Your task to perform on an android device: What's a good restaurant in San Francisco? Image 0: 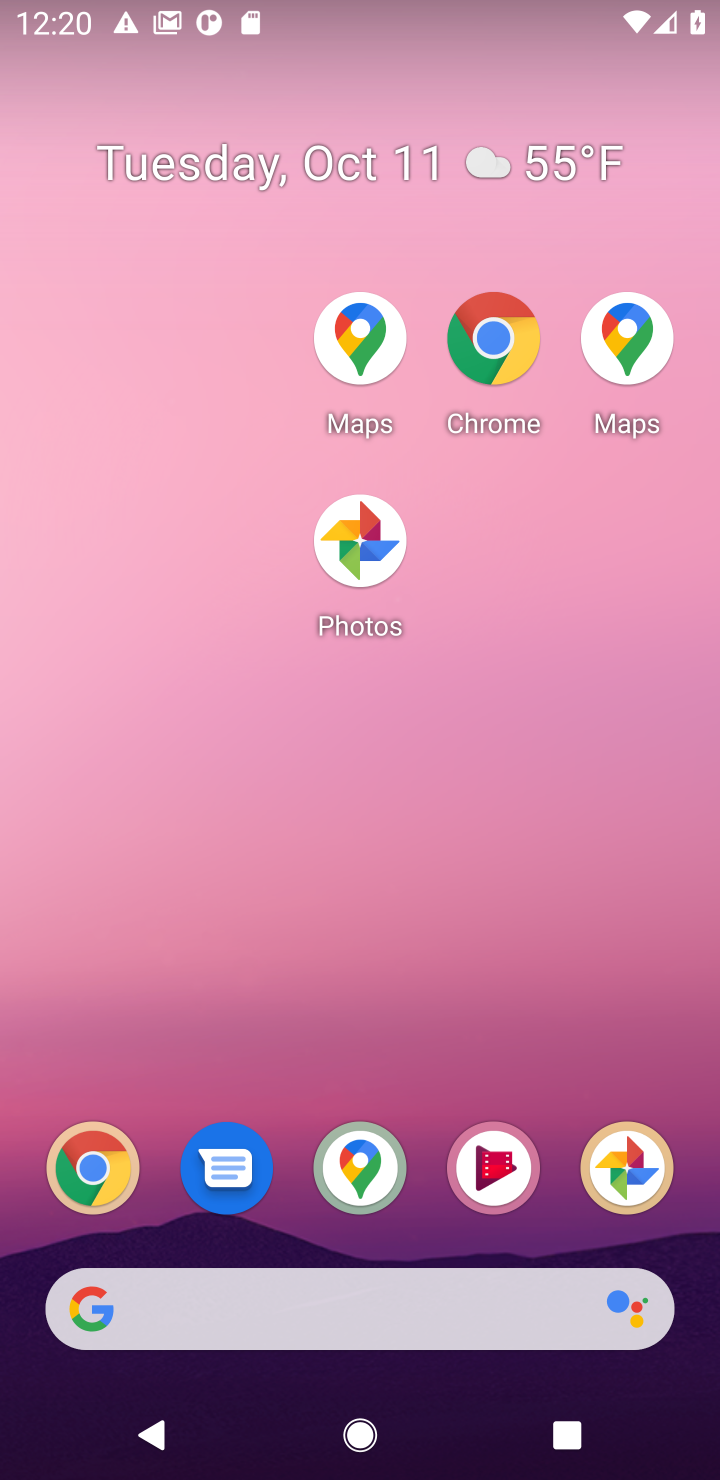
Step 0: drag from (439, 755) to (488, 31)
Your task to perform on an android device: What's a good restaurant in San Francisco? Image 1: 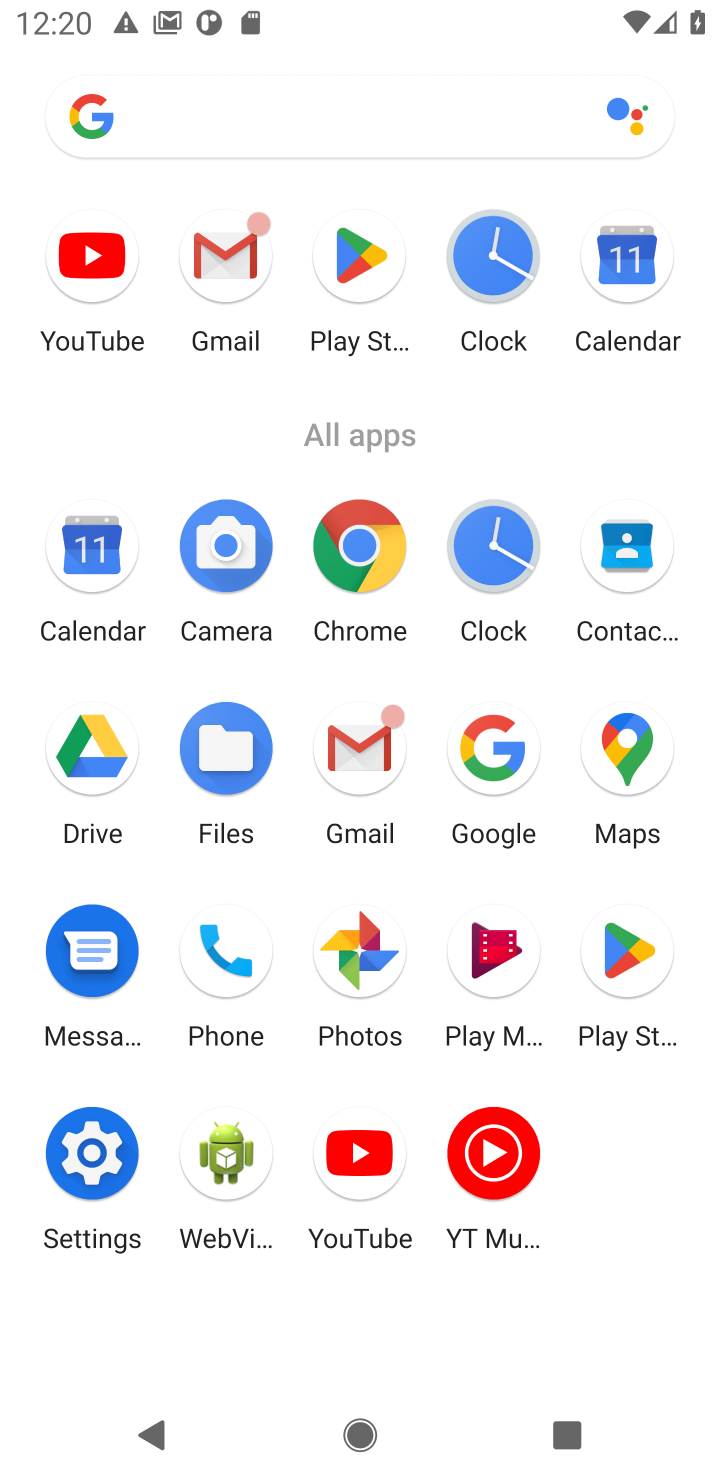
Step 1: click (516, 762)
Your task to perform on an android device: What's a good restaurant in San Francisco? Image 2: 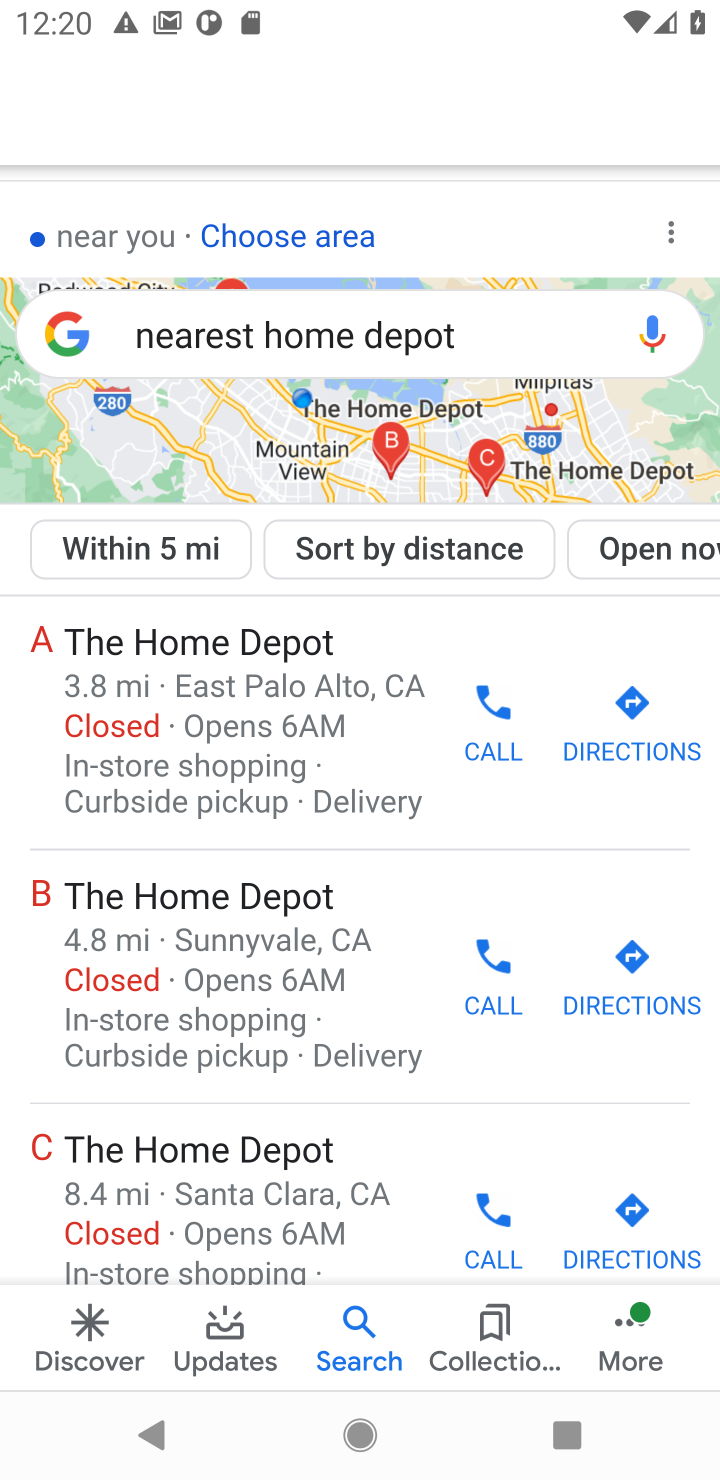
Step 2: click (458, 353)
Your task to perform on an android device: What's a good restaurant in San Francisco? Image 3: 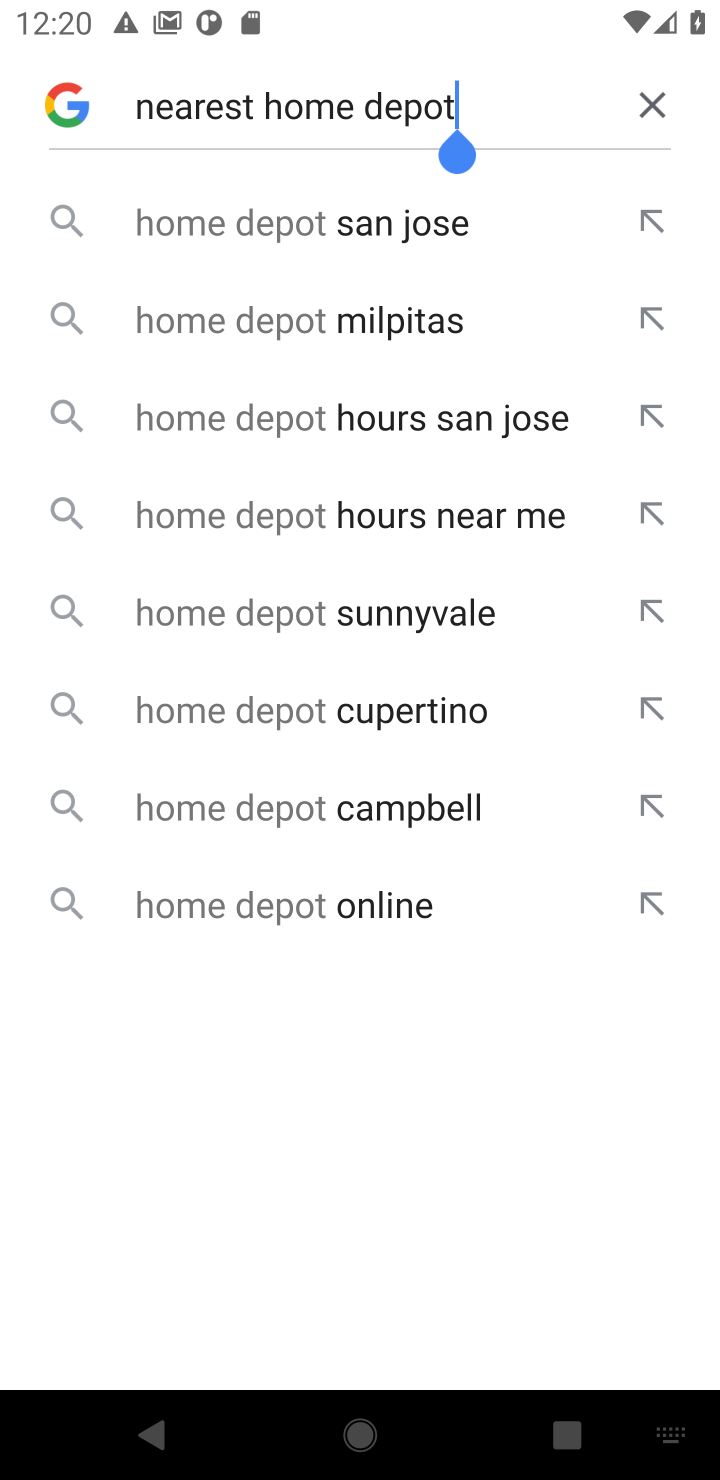
Step 3: click (667, 93)
Your task to perform on an android device: What's a good restaurant in San Francisco? Image 4: 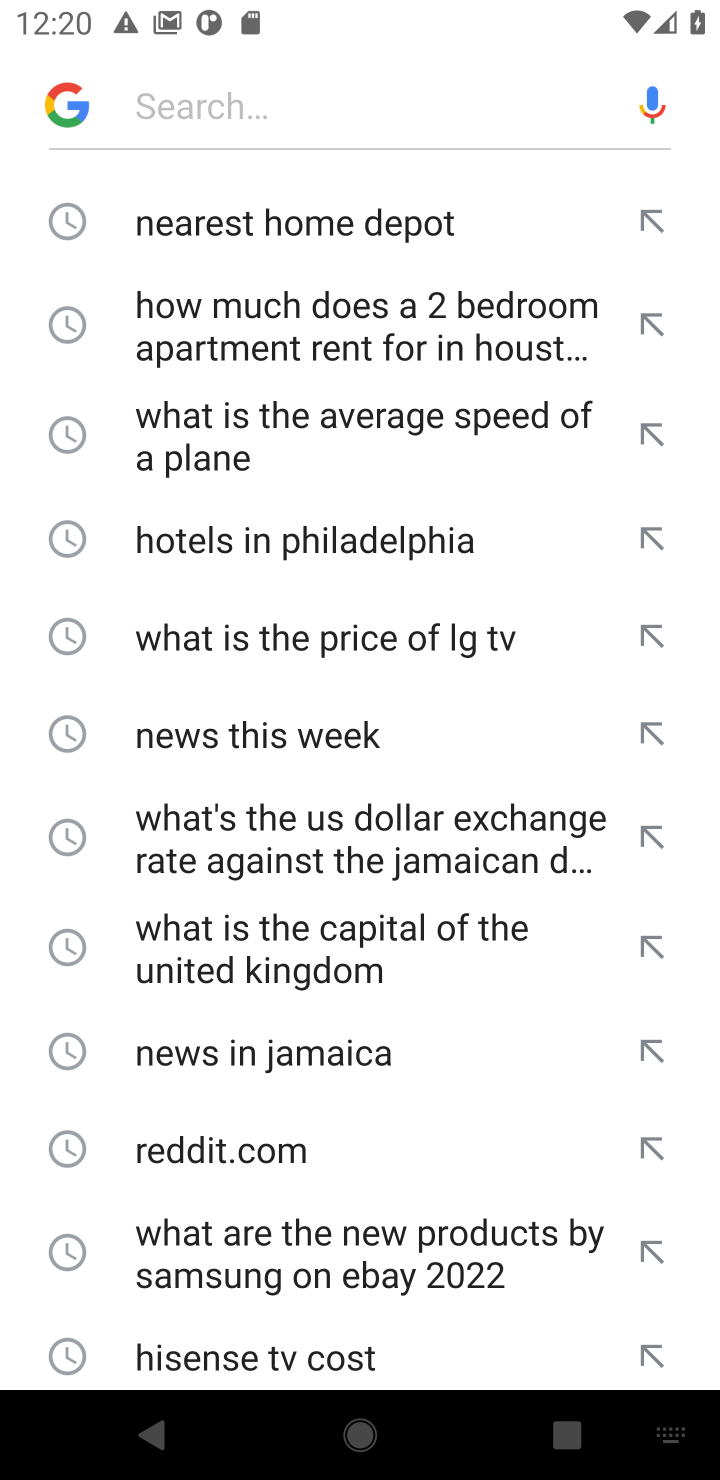
Step 4: type "good restaurant in San Francisco"
Your task to perform on an android device: What's a good restaurant in San Francisco? Image 5: 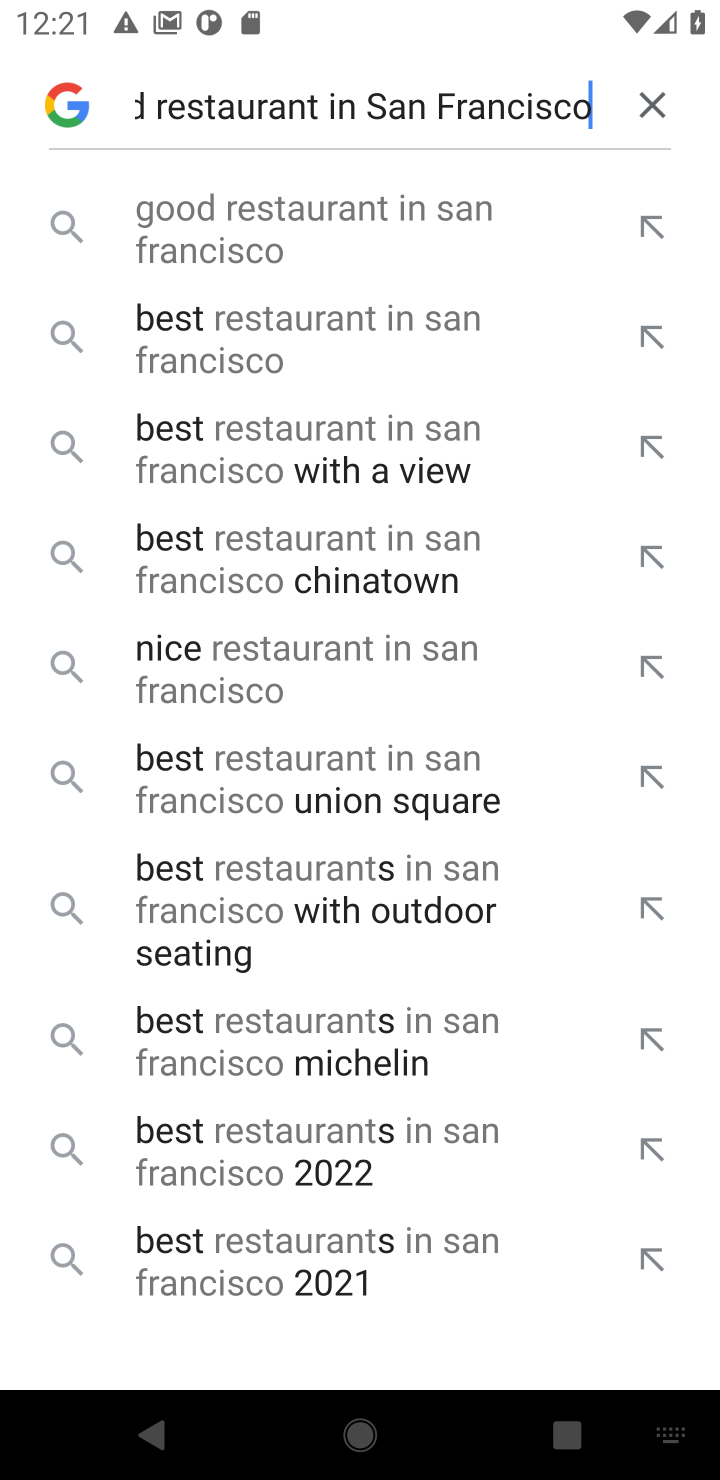
Step 5: click (391, 255)
Your task to perform on an android device: What's a good restaurant in San Francisco? Image 6: 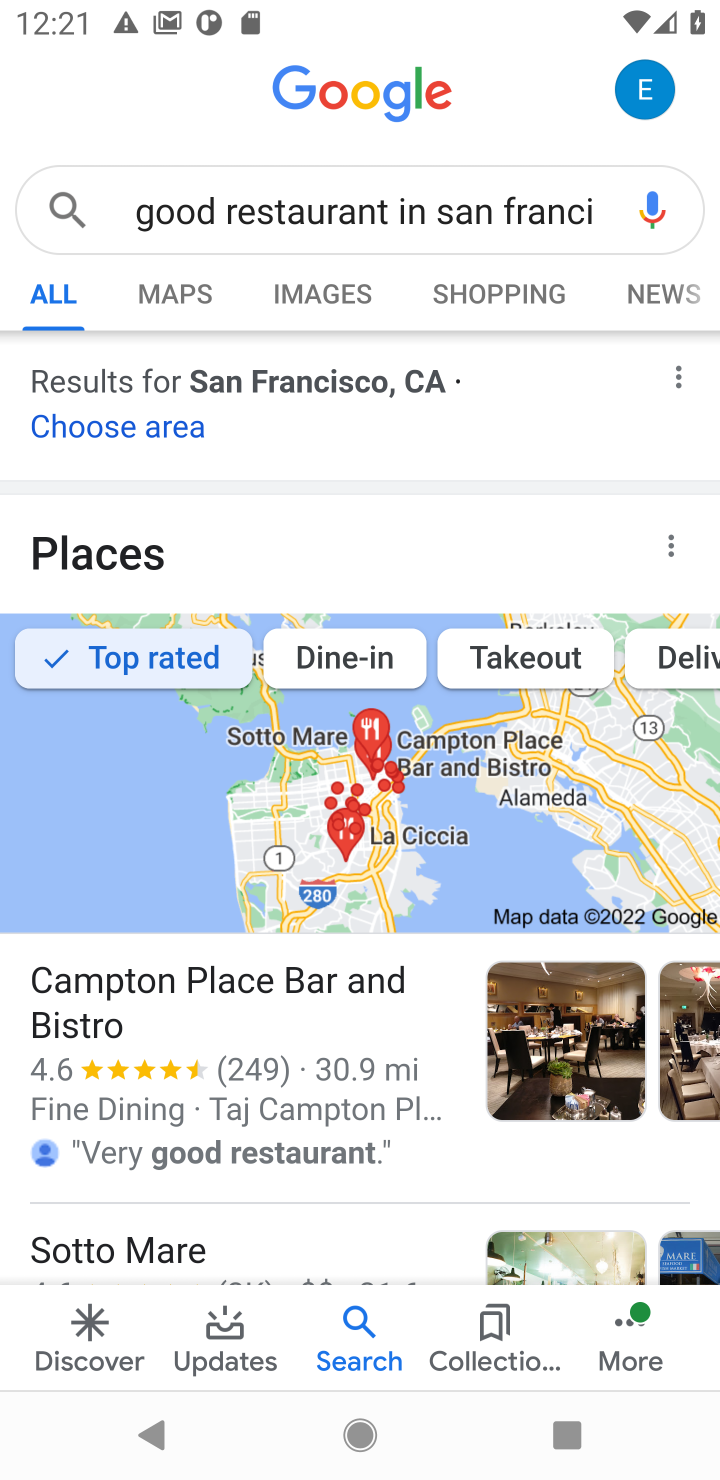
Step 6: task complete